Your task to perform on an android device: Search for razer huntsman on walmart, select the first entry, and add it to the cart. Image 0: 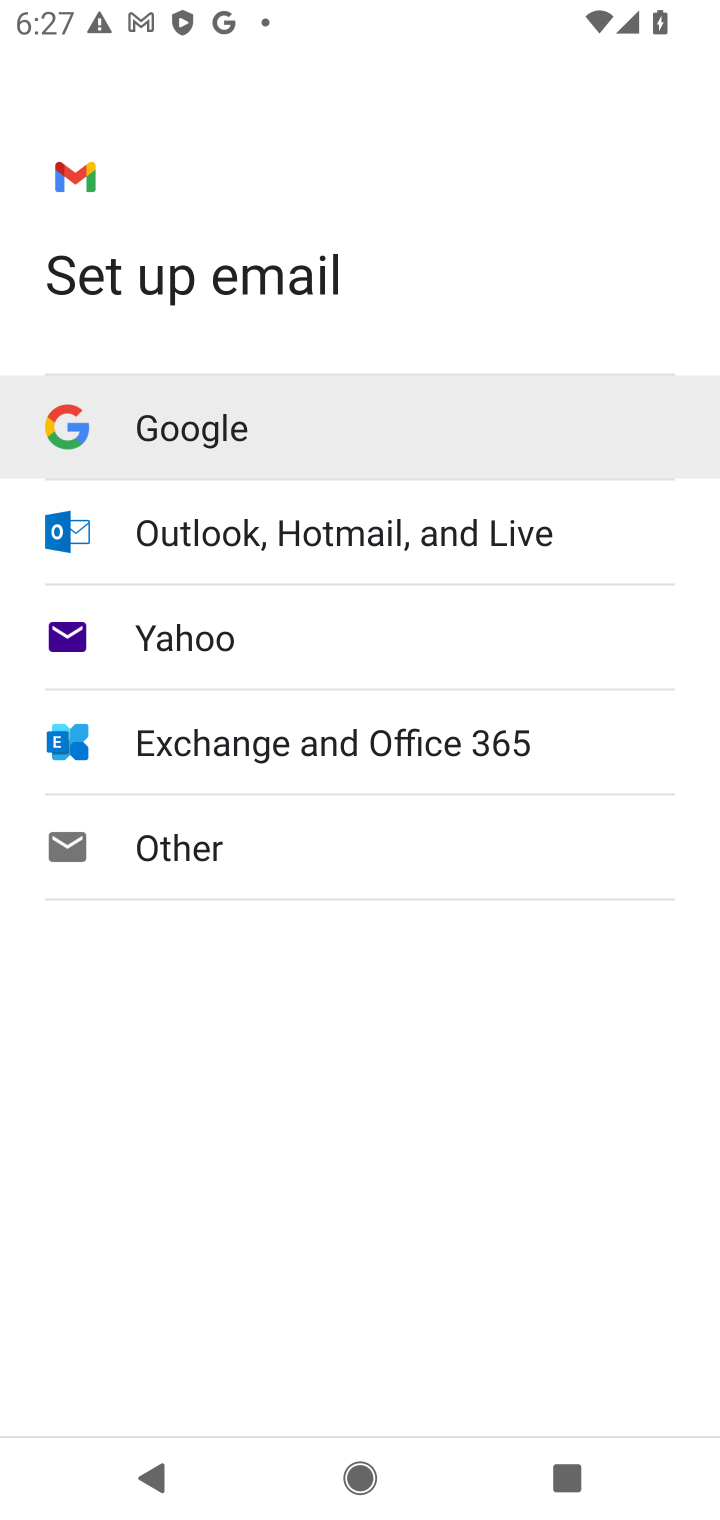
Step 0: press home button
Your task to perform on an android device: Search for razer huntsman on walmart, select the first entry, and add it to the cart. Image 1: 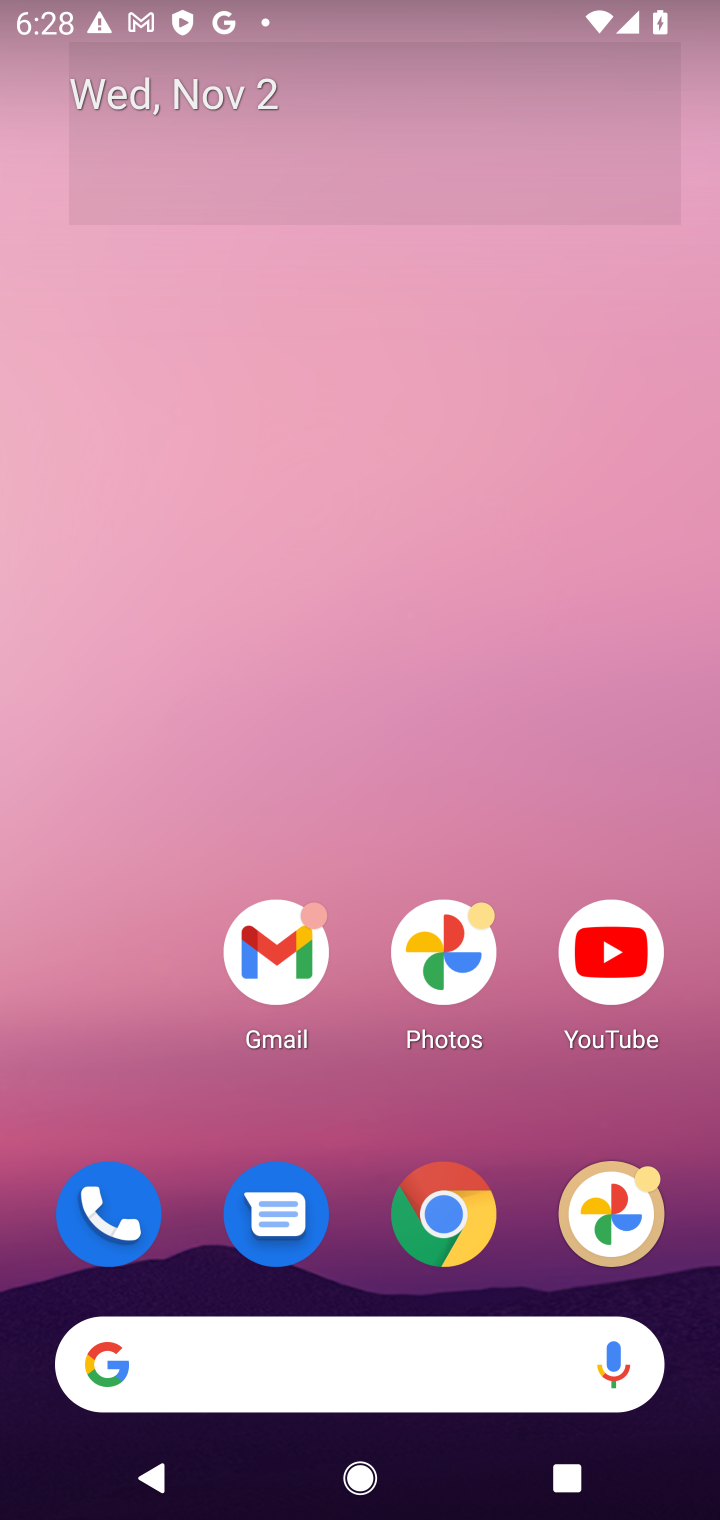
Step 1: click (446, 1218)
Your task to perform on an android device: Search for razer huntsman on walmart, select the first entry, and add it to the cart. Image 2: 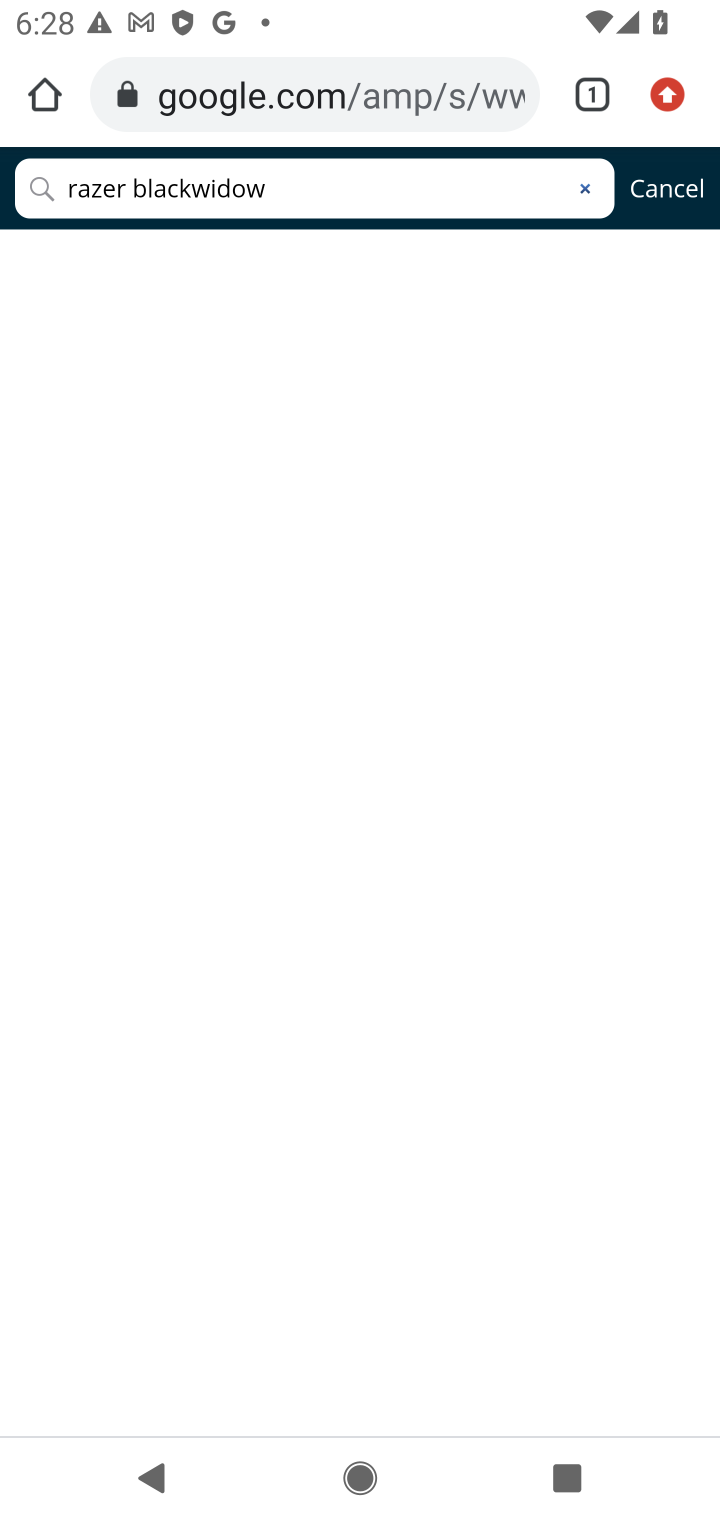
Step 2: click (501, 99)
Your task to perform on an android device: Search for razer huntsman on walmart, select the first entry, and add it to the cart. Image 3: 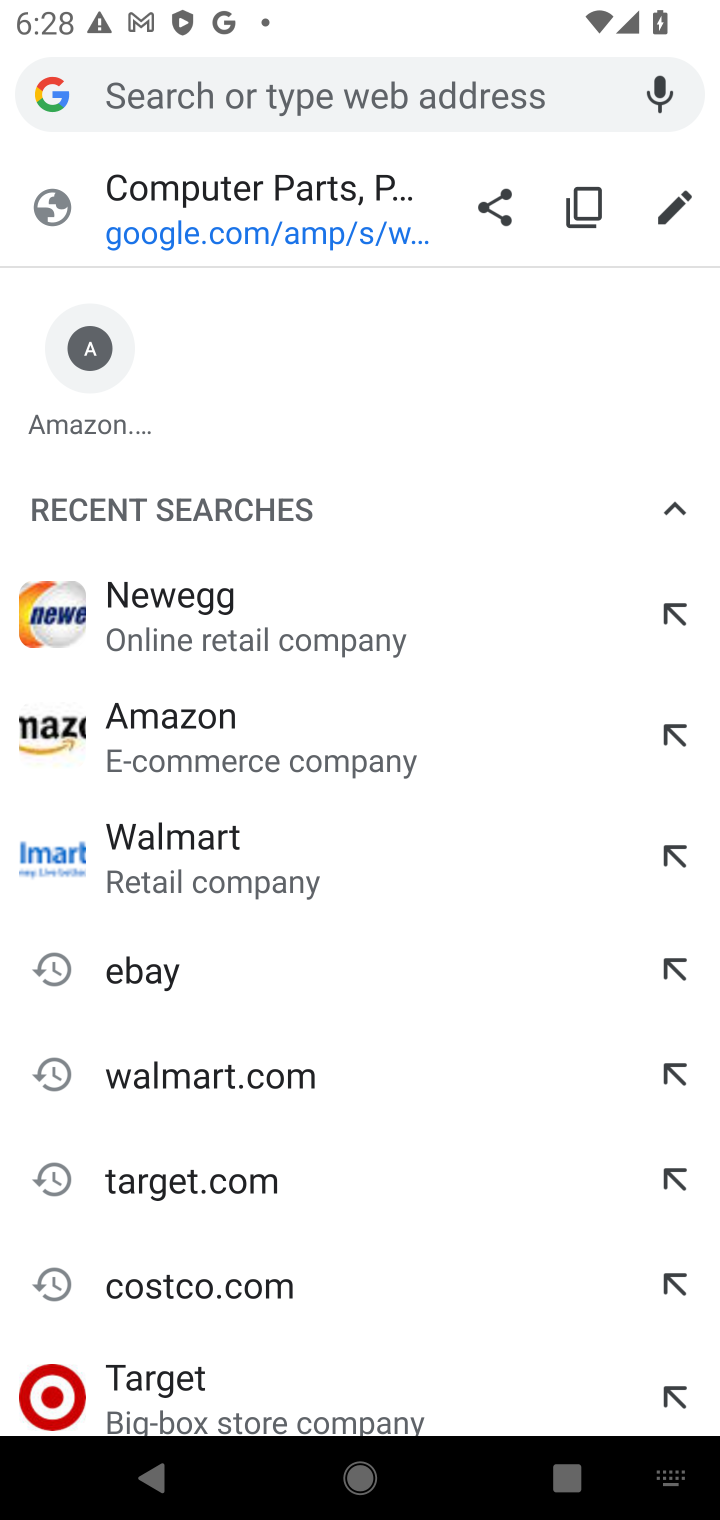
Step 3: type "walmart"
Your task to perform on an android device: Search for razer huntsman on walmart, select the first entry, and add it to the cart. Image 4: 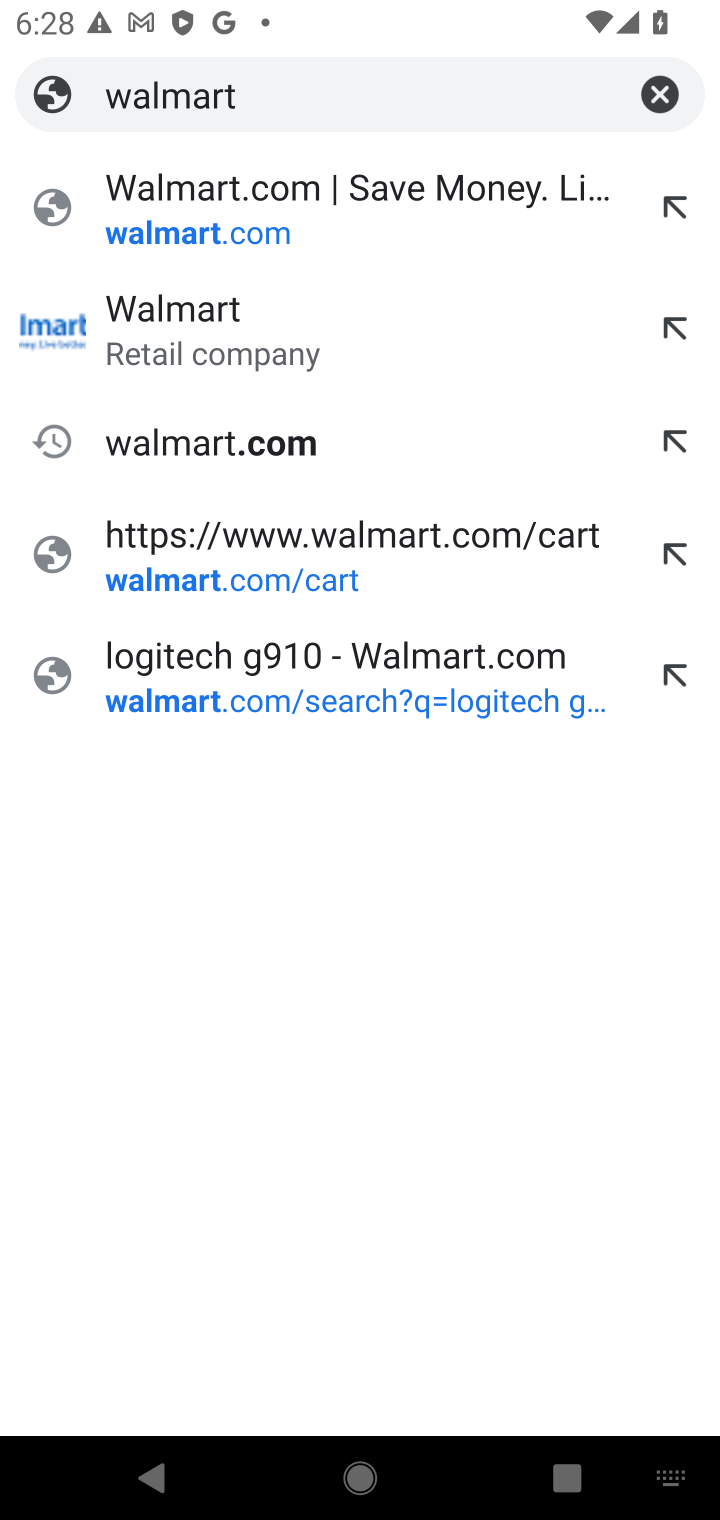
Step 4: click (246, 335)
Your task to perform on an android device: Search for razer huntsman on walmart, select the first entry, and add it to the cart. Image 5: 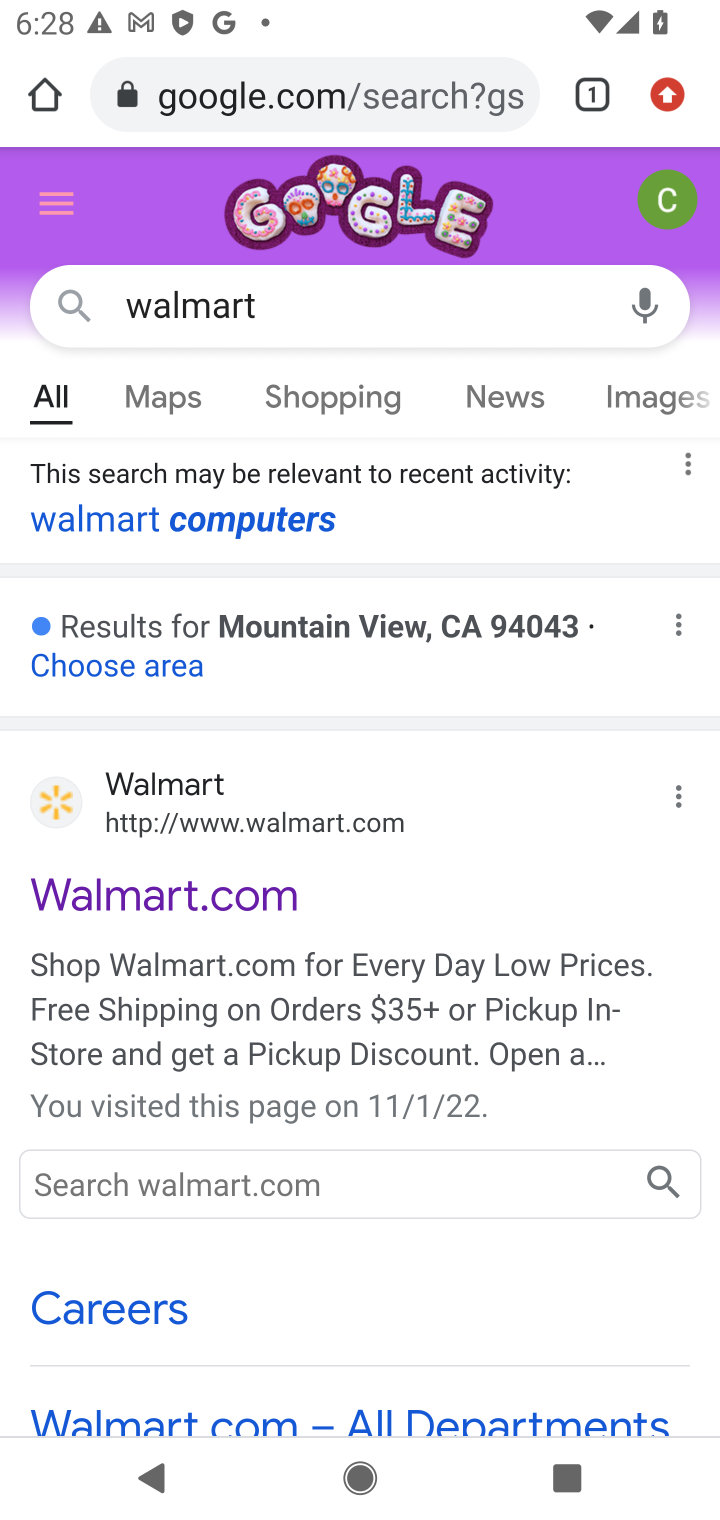
Step 5: click (277, 859)
Your task to perform on an android device: Search for razer huntsman on walmart, select the first entry, and add it to the cart. Image 6: 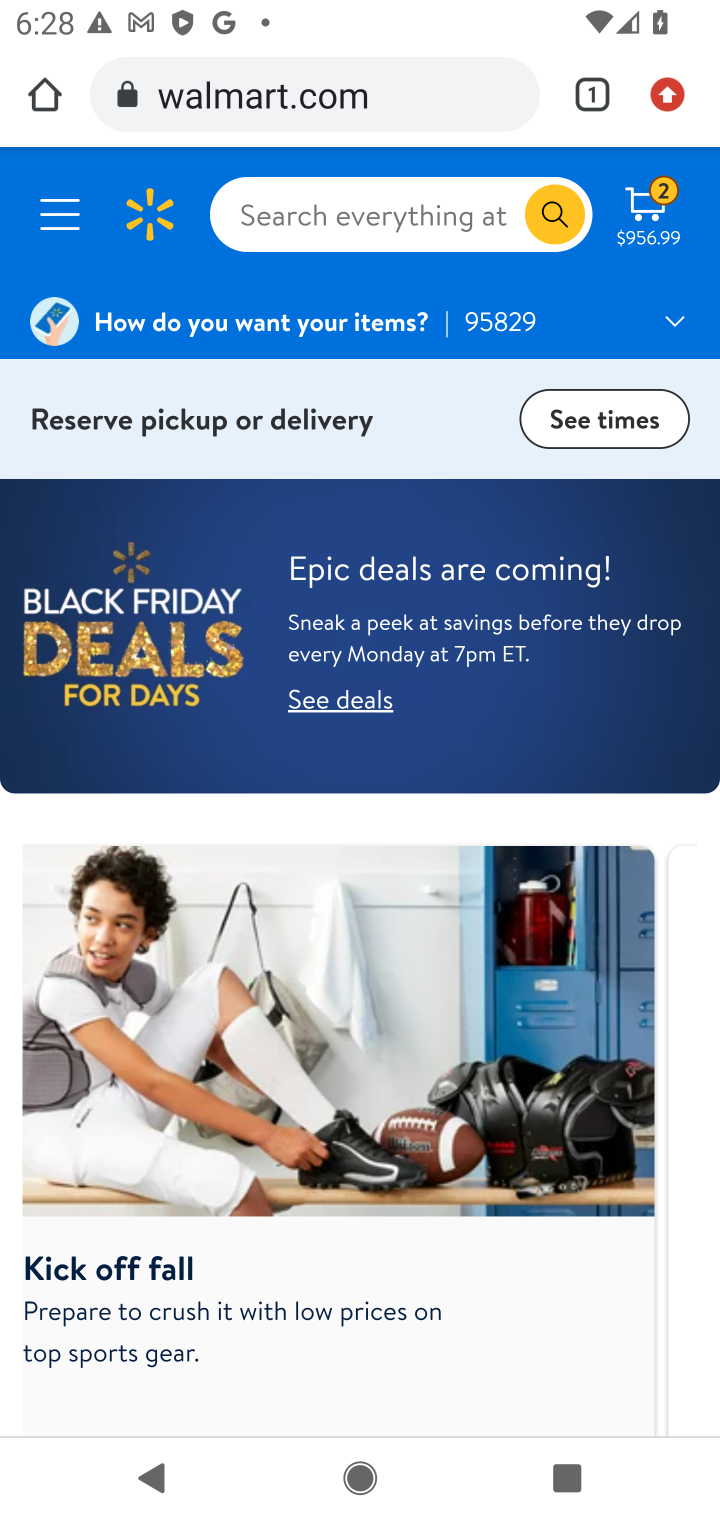
Step 6: click (377, 203)
Your task to perform on an android device: Search for razer huntsman on walmart, select the first entry, and add it to the cart. Image 7: 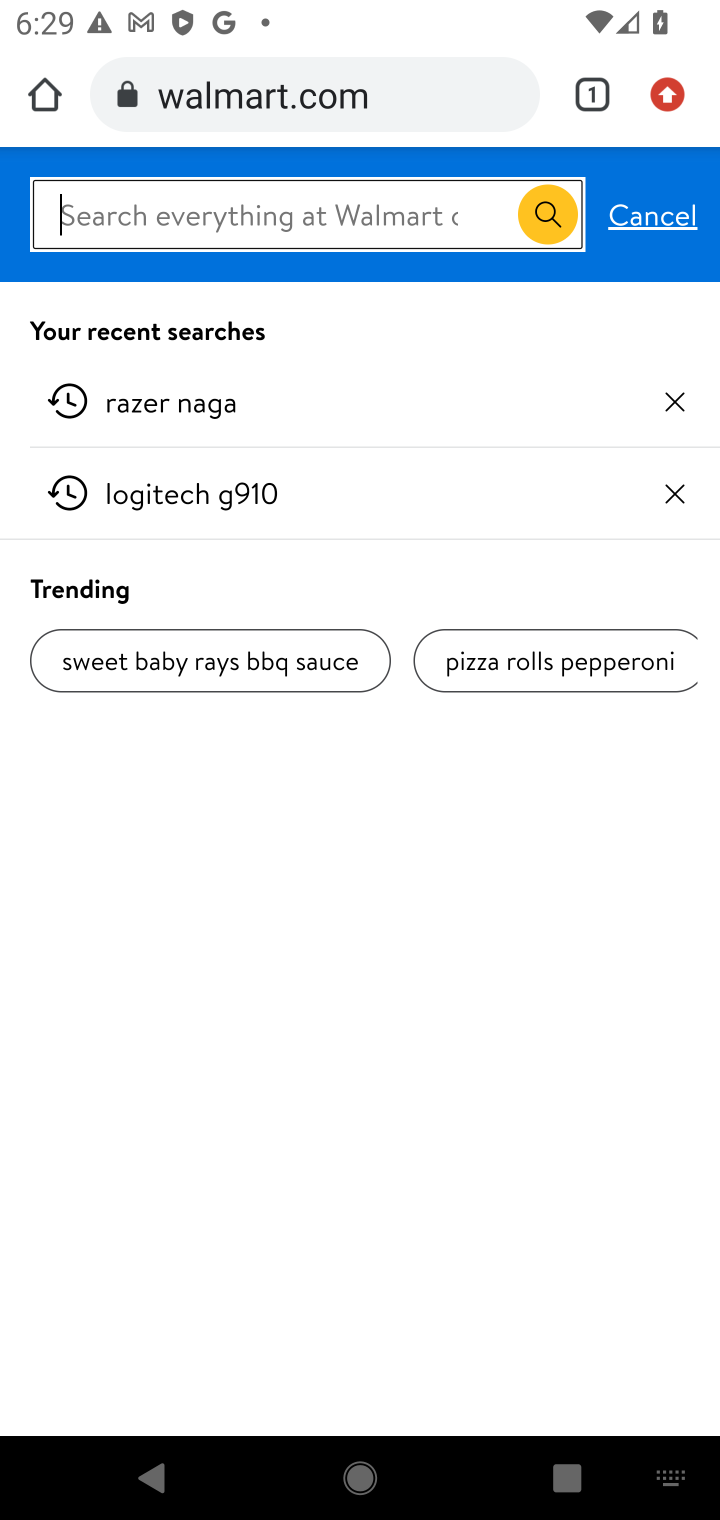
Step 7: type "razer huntsman"
Your task to perform on an android device: Search for razer huntsman on walmart, select the first entry, and add it to the cart. Image 8: 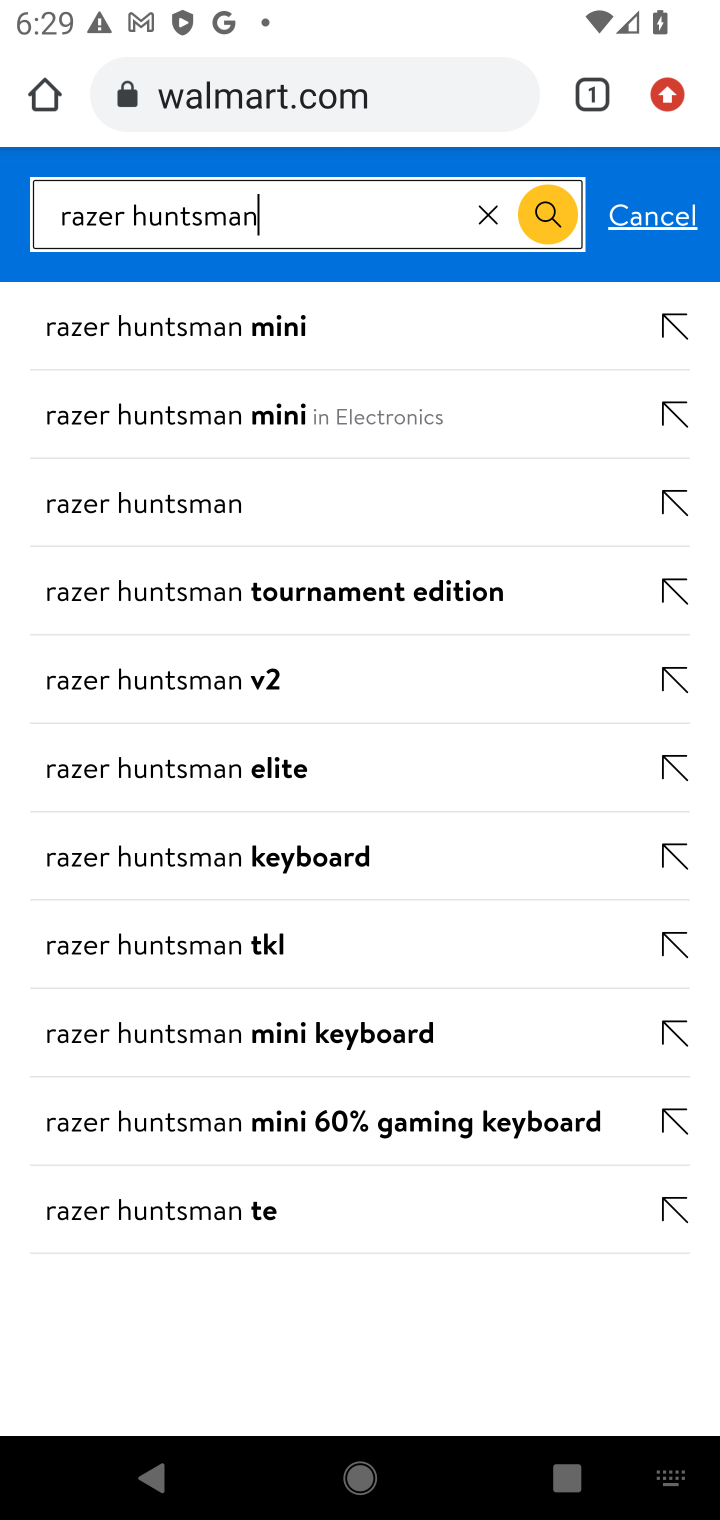
Step 8: click (548, 220)
Your task to perform on an android device: Search for razer huntsman on walmart, select the first entry, and add it to the cart. Image 9: 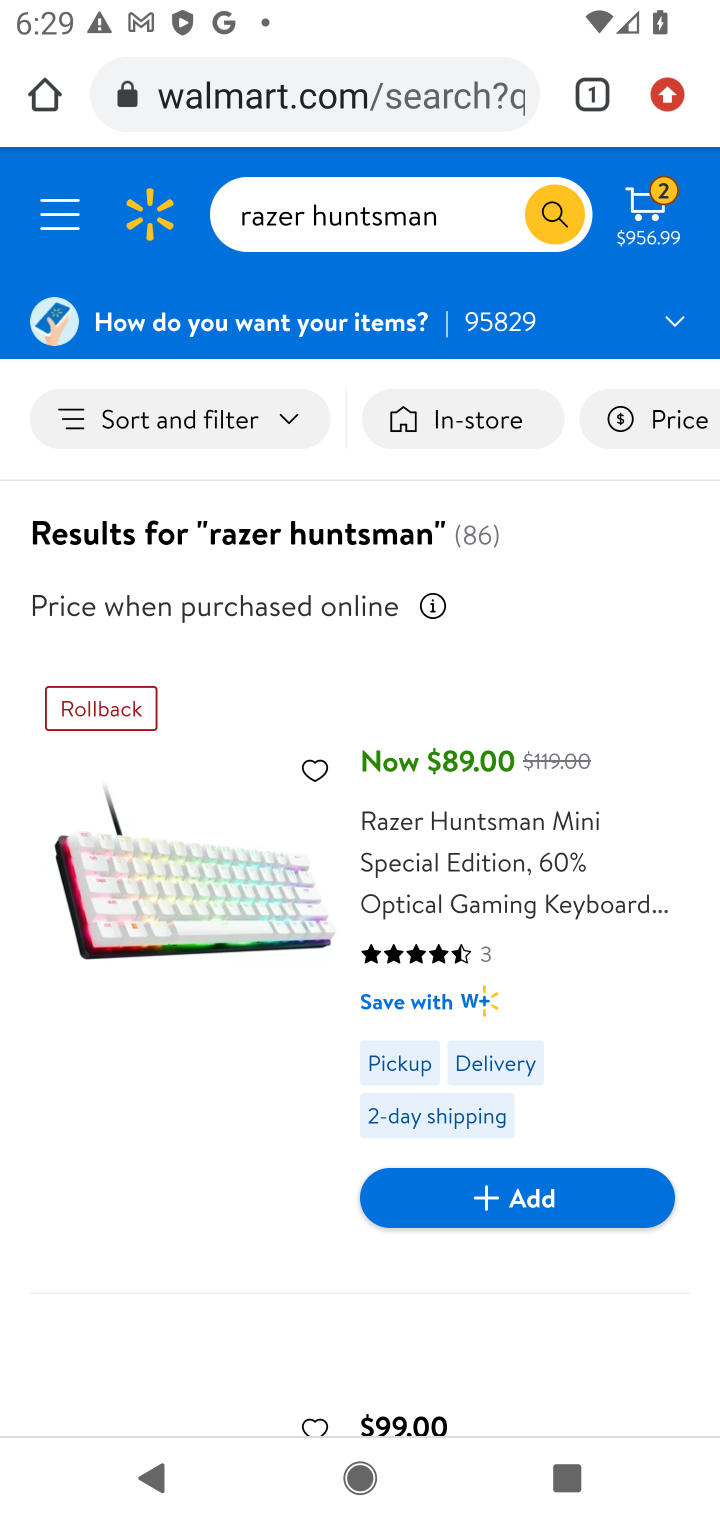
Step 9: click (530, 1202)
Your task to perform on an android device: Search for razer huntsman on walmart, select the first entry, and add it to the cart. Image 10: 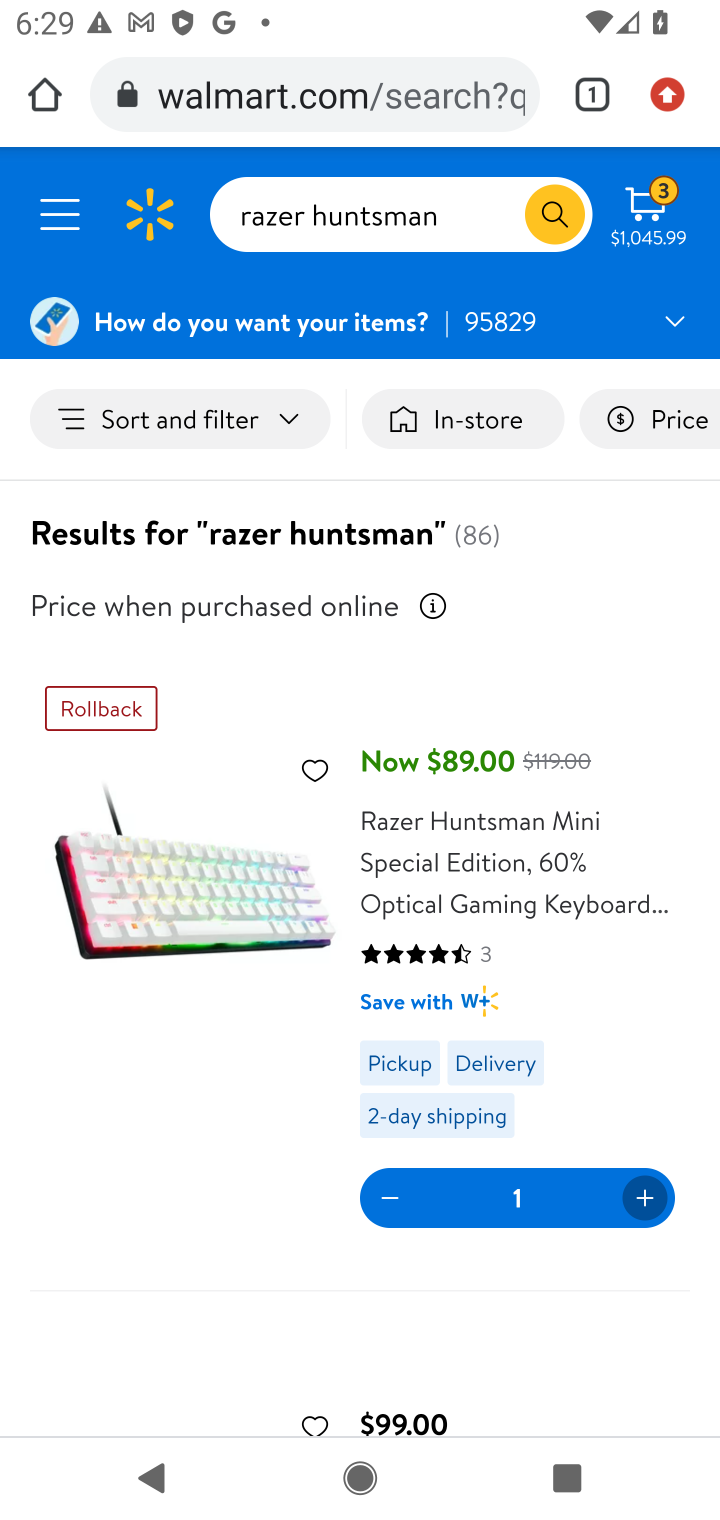
Step 10: task complete